Your task to perform on an android device: toggle data saver in the chrome app Image 0: 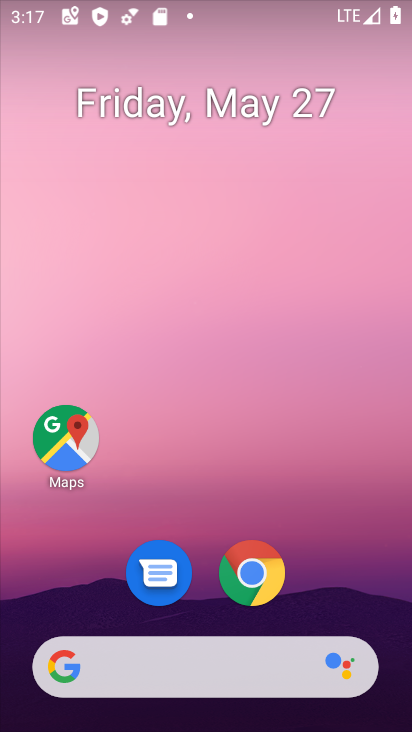
Step 0: click (254, 574)
Your task to perform on an android device: toggle data saver in the chrome app Image 1: 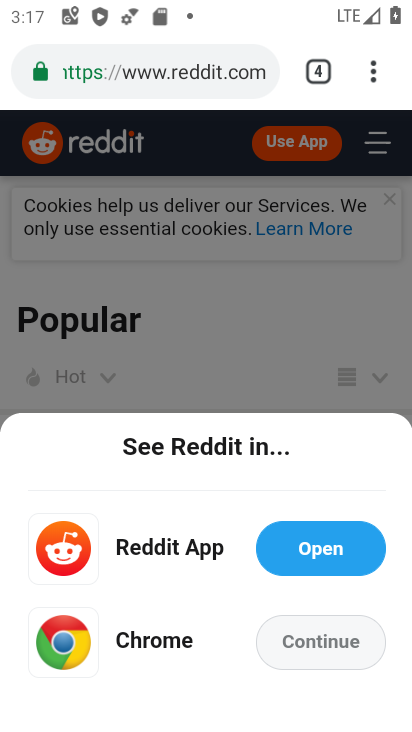
Step 1: click (370, 65)
Your task to perform on an android device: toggle data saver in the chrome app Image 2: 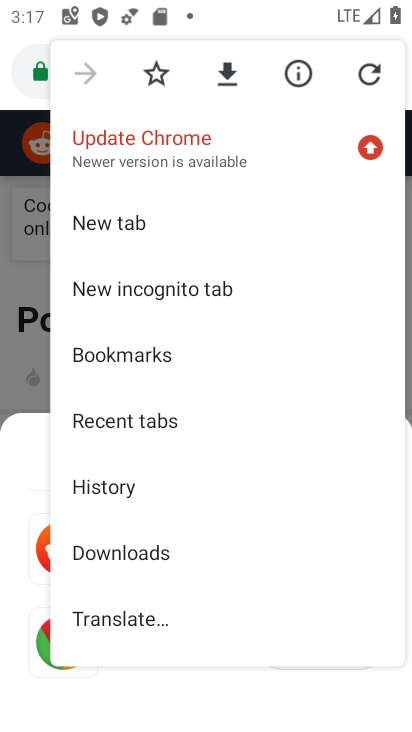
Step 2: drag from (244, 505) to (227, 77)
Your task to perform on an android device: toggle data saver in the chrome app Image 3: 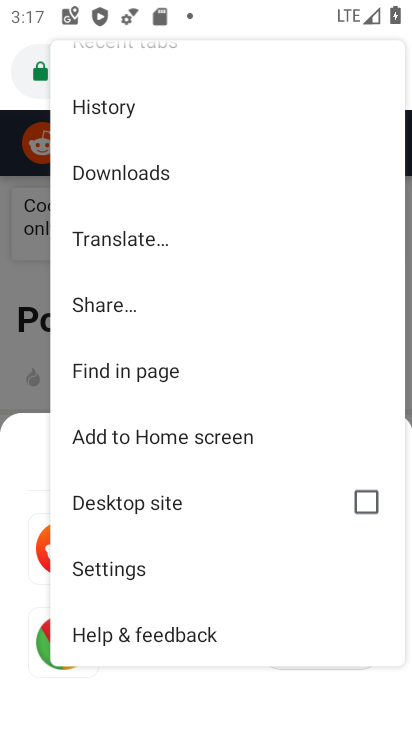
Step 3: click (172, 566)
Your task to perform on an android device: toggle data saver in the chrome app Image 4: 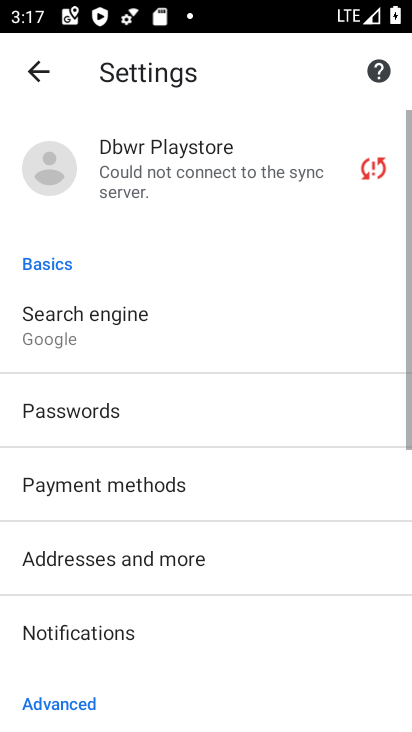
Step 4: drag from (215, 532) to (267, 112)
Your task to perform on an android device: toggle data saver in the chrome app Image 5: 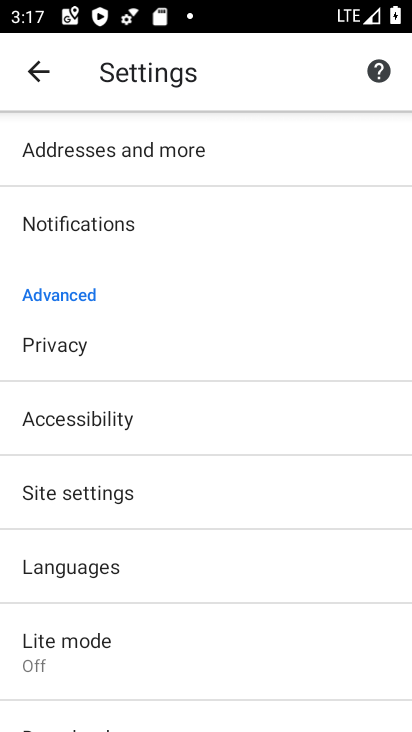
Step 5: click (133, 649)
Your task to perform on an android device: toggle data saver in the chrome app Image 6: 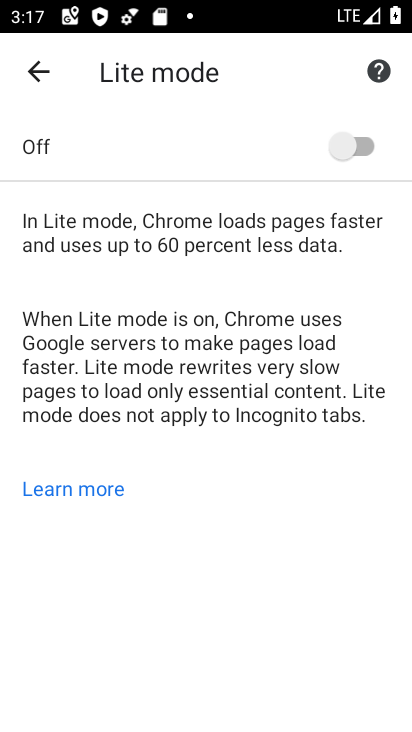
Step 6: click (358, 141)
Your task to perform on an android device: toggle data saver in the chrome app Image 7: 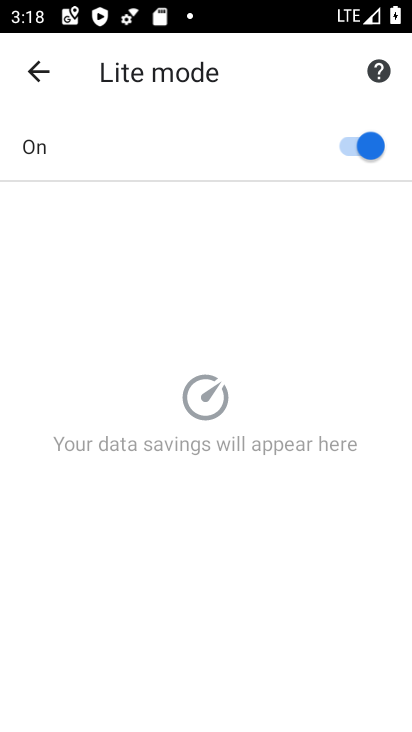
Step 7: task complete